Your task to perform on an android device: Go to wifi settings Image 0: 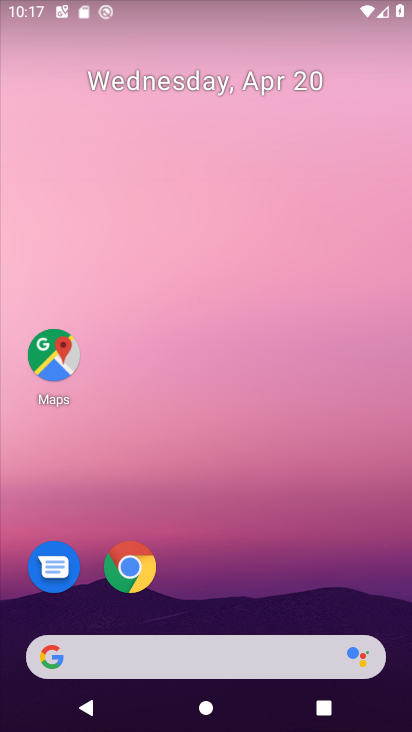
Step 0: drag from (348, 552) to (82, 427)
Your task to perform on an android device: Go to wifi settings Image 1: 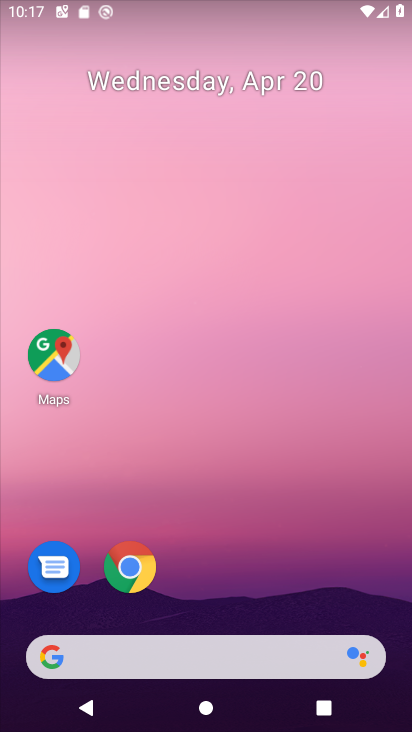
Step 1: drag from (262, 472) to (265, 161)
Your task to perform on an android device: Go to wifi settings Image 2: 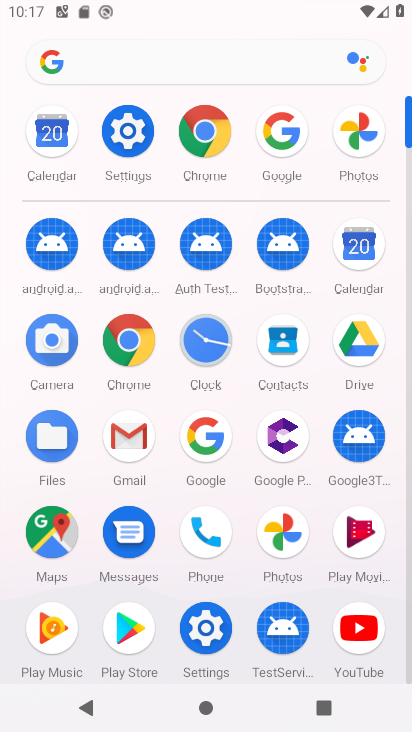
Step 2: click (209, 633)
Your task to perform on an android device: Go to wifi settings Image 3: 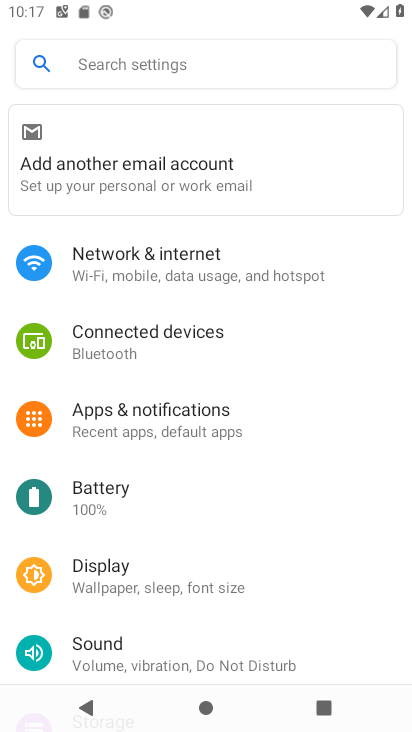
Step 3: click (234, 256)
Your task to perform on an android device: Go to wifi settings Image 4: 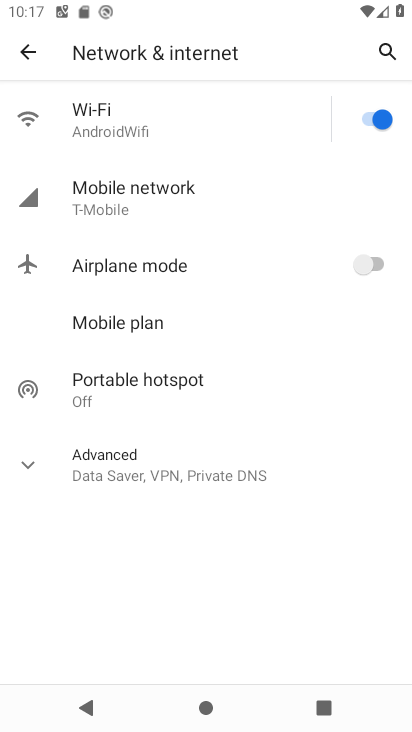
Step 4: click (115, 108)
Your task to perform on an android device: Go to wifi settings Image 5: 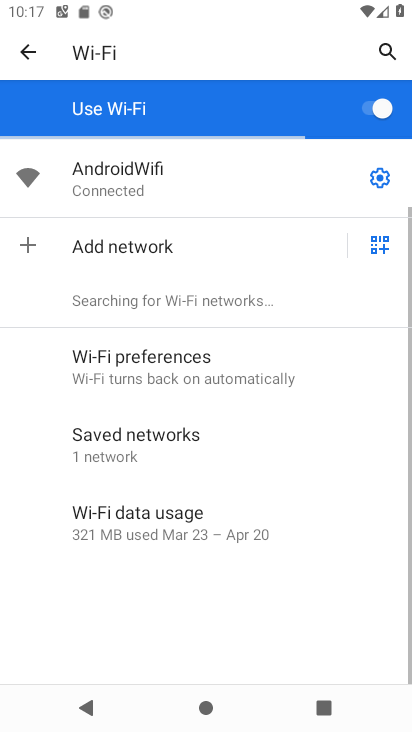
Step 5: task complete